Your task to perform on an android device: turn off notifications settings in the gmail app Image 0: 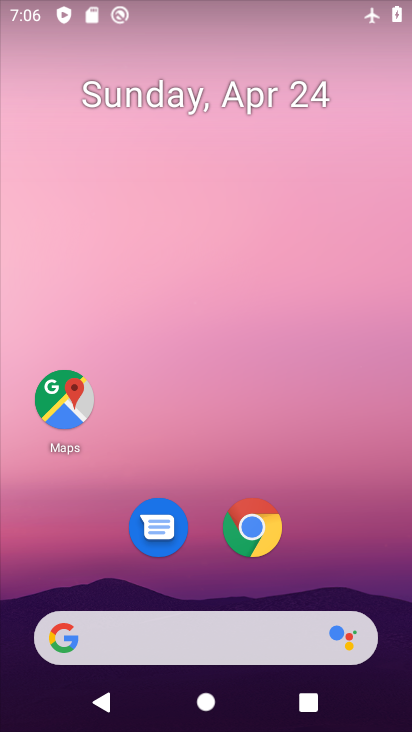
Step 0: drag from (326, 578) to (327, 30)
Your task to perform on an android device: turn off notifications settings in the gmail app Image 1: 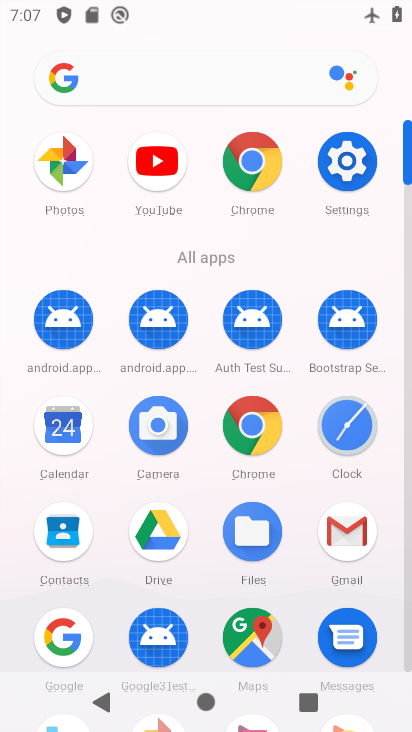
Step 1: click (360, 539)
Your task to perform on an android device: turn off notifications settings in the gmail app Image 2: 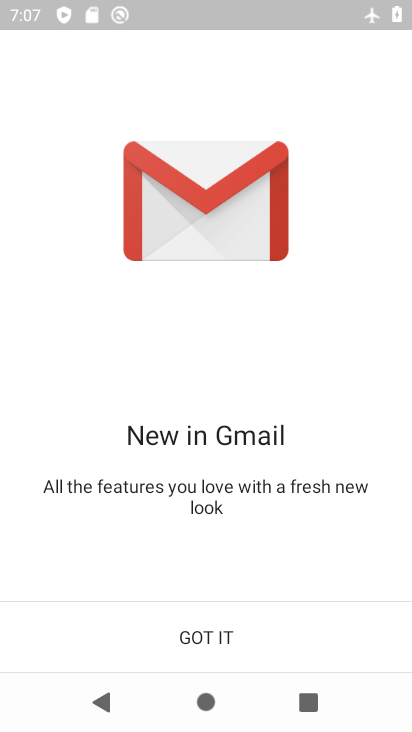
Step 2: click (275, 621)
Your task to perform on an android device: turn off notifications settings in the gmail app Image 3: 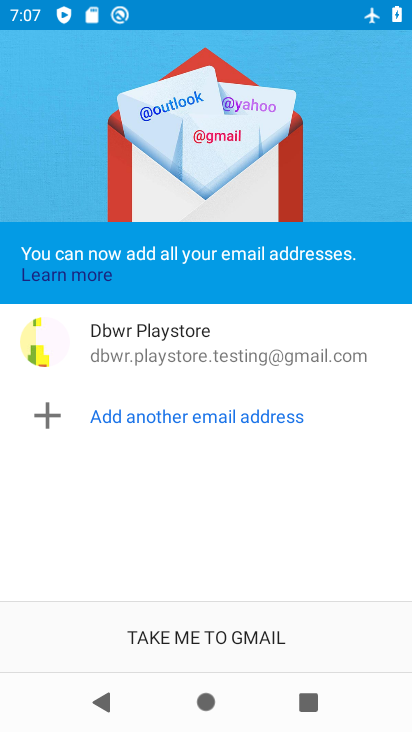
Step 3: click (241, 616)
Your task to perform on an android device: turn off notifications settings in the gmail app Image 4: 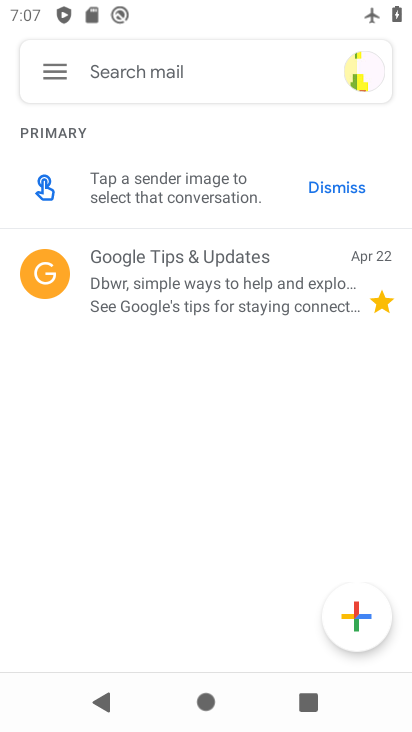
Step 4: click (54, 73)
Your task to perform on an android device: turn off notifications settings in the gmail app Image 5: 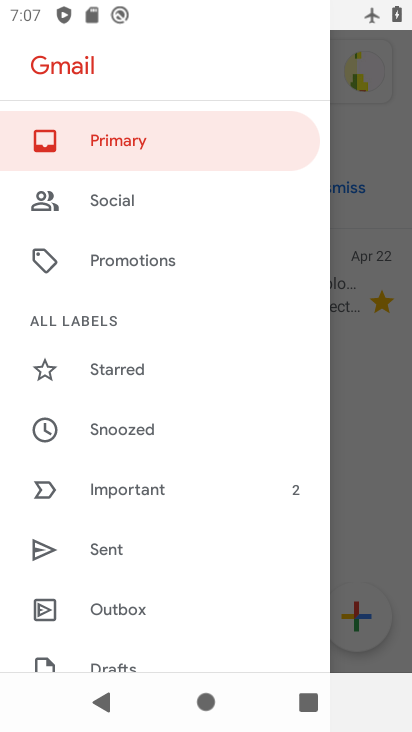
Step 5: drag from (88, 606) to (209, 121)
Your task to perform on an android device: turn off notifications settings in the gmail app Image 6: 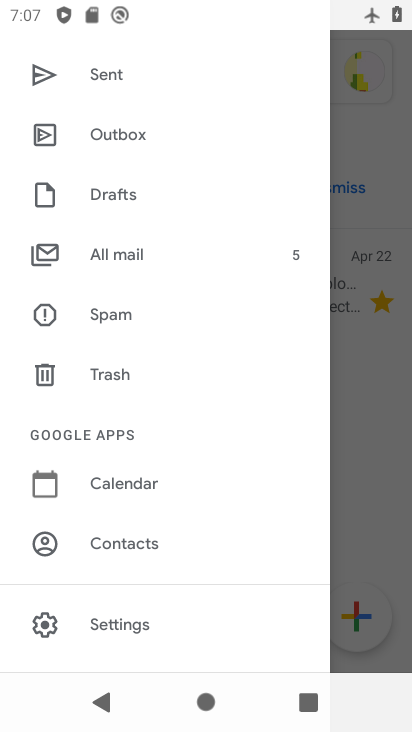
Step 6: click (129, 624)
Your task to perform on an android device: turn off notifications settings in the gmail app Image 7: 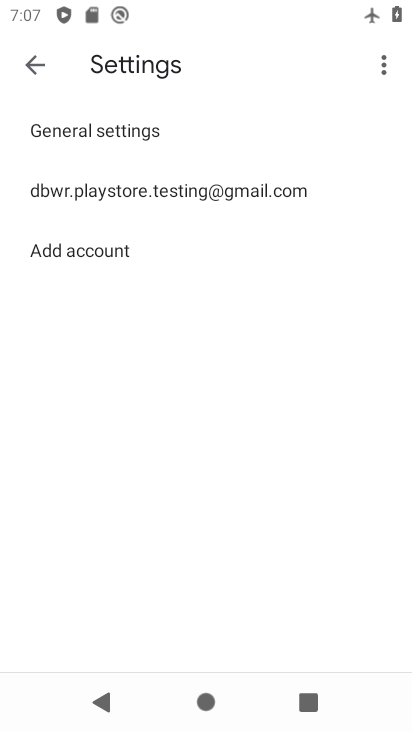
Step 7: click (214, 192)
Your task to perform on an android device: turn off notifications settings in the gmail app Image 8: 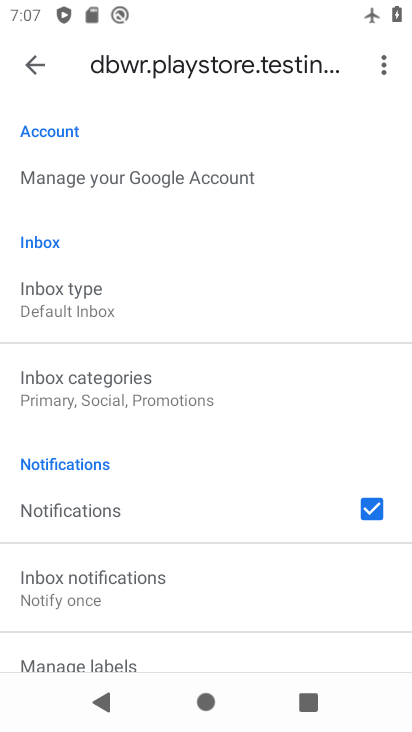
Step 8: click (130, 519)
Your task to perform on an android device: turn off notifications settings in the gmail app Image 9: 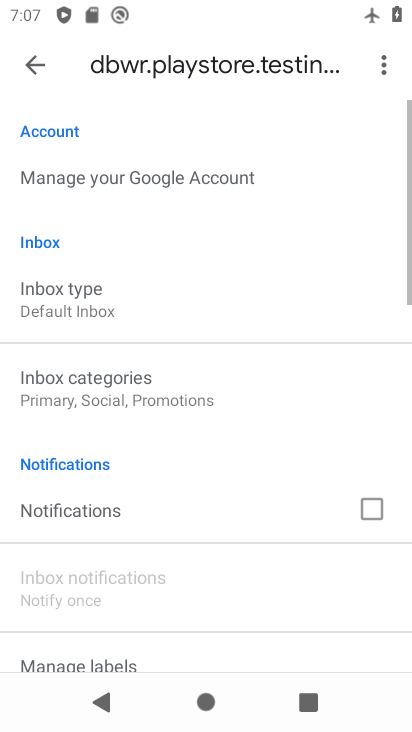
Step 9: task complete